Your task to perform on an android device: Open my contact list Image 0: 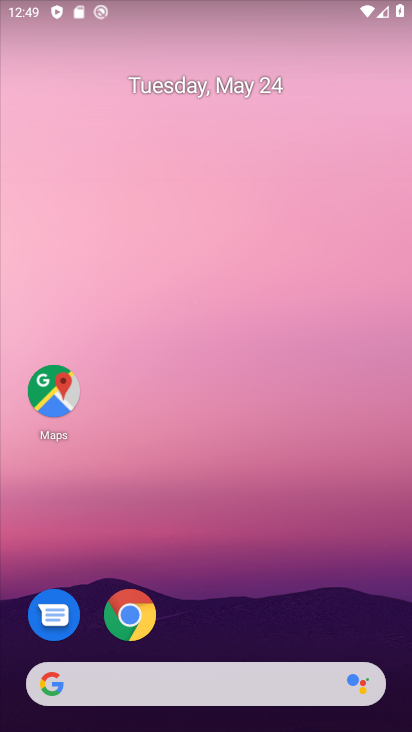
Step 0: drag from (213, 656) to (195, 14)
Your task to perform on an android device: Open my contact list Image 1: 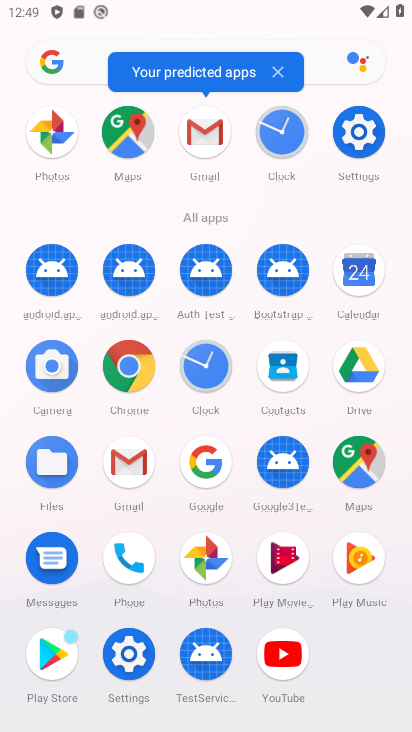
Step 1: click (283, 375)
Your task to perform on an android device: Open my contact list Image 2: 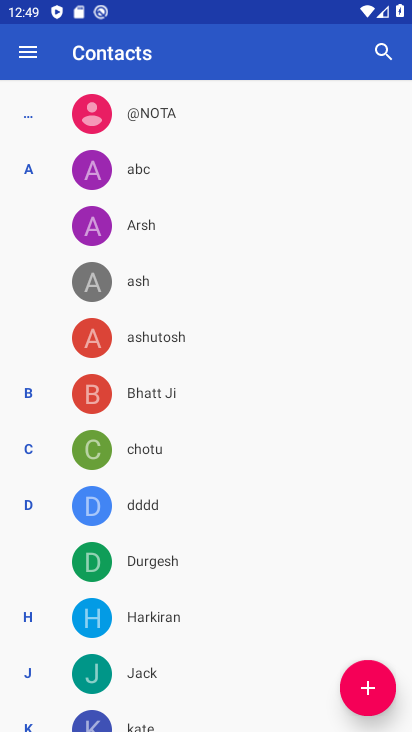
Step 2: task complete